Your task to perform on an android device: Open the calendar and show me this week's events? Image 0: 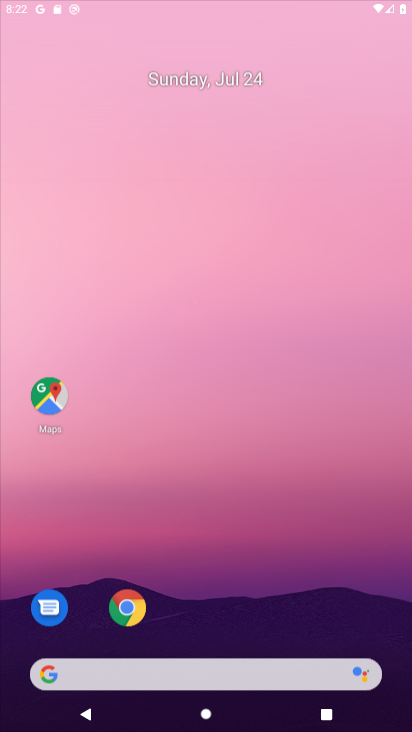
Step 0: click (282, 72)
Your task to perform on an android device: Open the calendar and show me this week's events? Image 1: 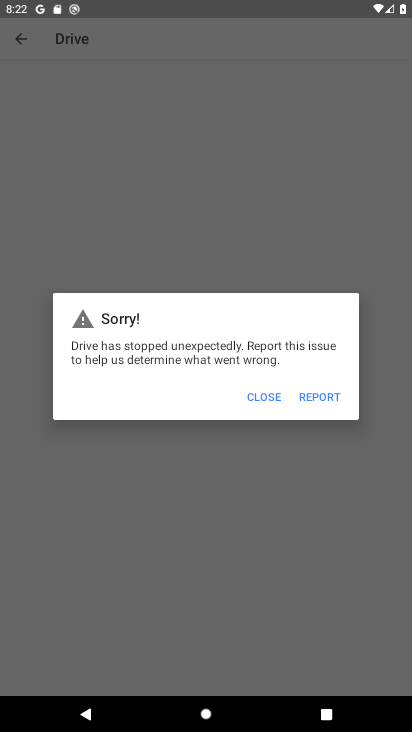
Step 1: press home button
Your task to perform on an android device: Open the calendar and show me this week's events? Image 2: 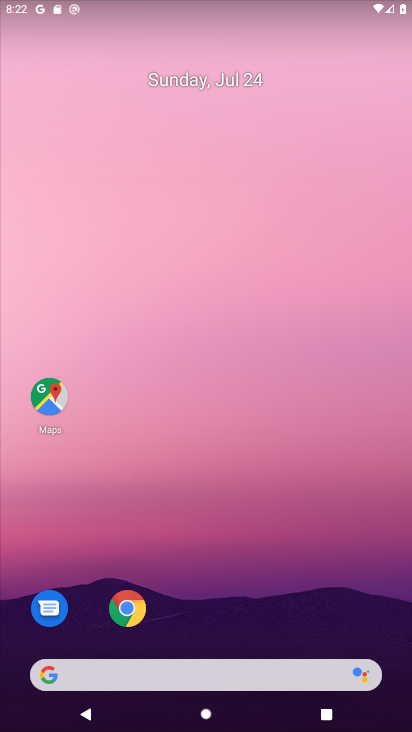
Step 2: click (204, 88)
Your task to perform on an android device: Open the calendar and show me this week's events? Image 3: 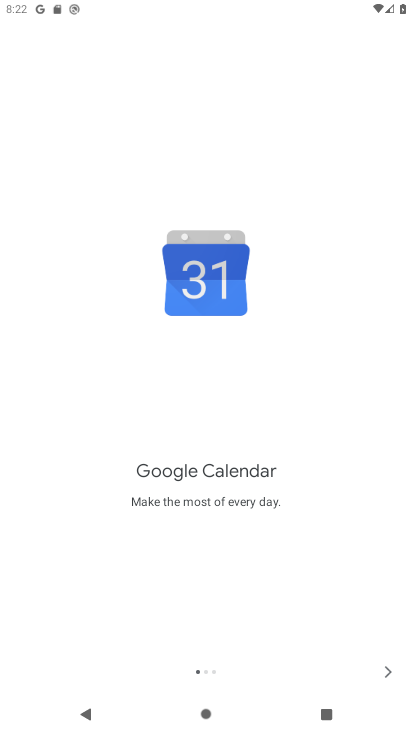
Step 3: click (390, 683)
Your task to perform on an android device: Open the calendar and show me this week's events? Image 4: 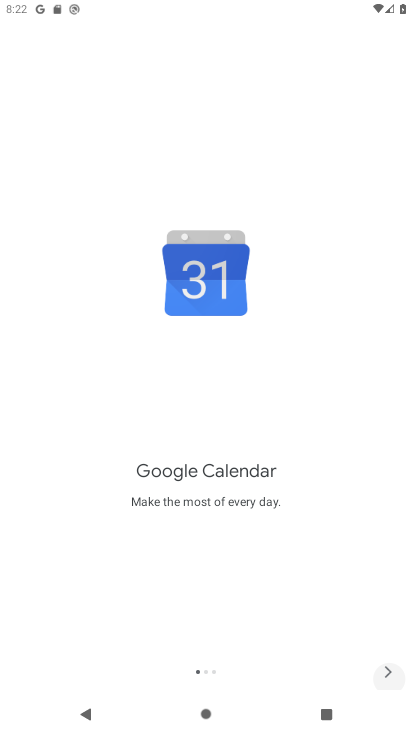
Step 4: click (390, 683)
Your task to perform on an android device: Open the calendar and show me this week's events? Image 5: 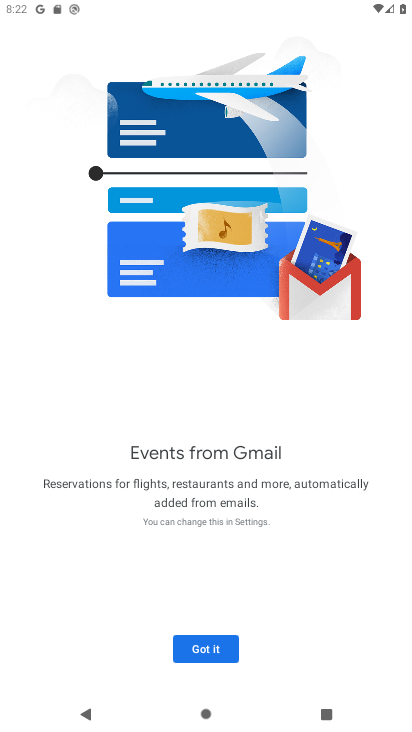
Step 5: click (199, 644)
Your task to perform on an android device: Open the calendar and show me this week's events? Image 6: 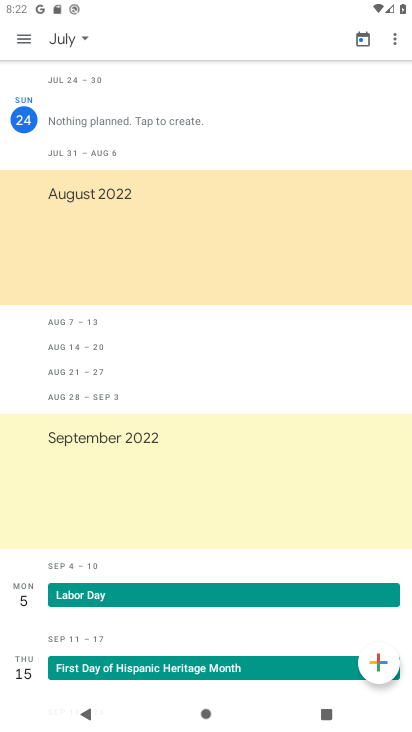
Step 6: click (26, 37)
Your task to perform on an android device: Open the calendar and show me this week's events? Image 7: 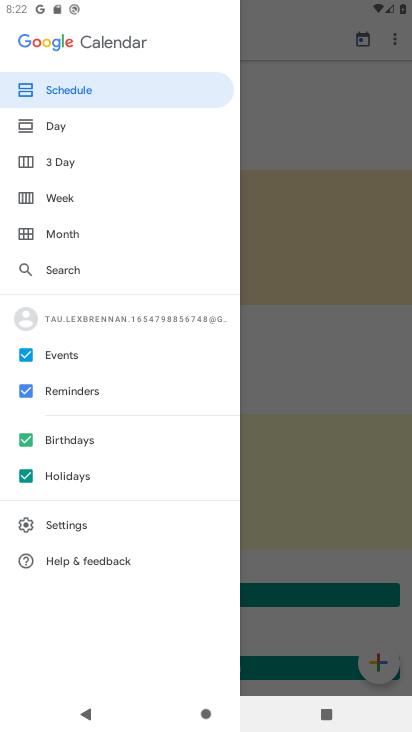
Step 7: click (26, 402)
Your task to perform on an android device: Open the calendar and show me this week's events? Image 8: 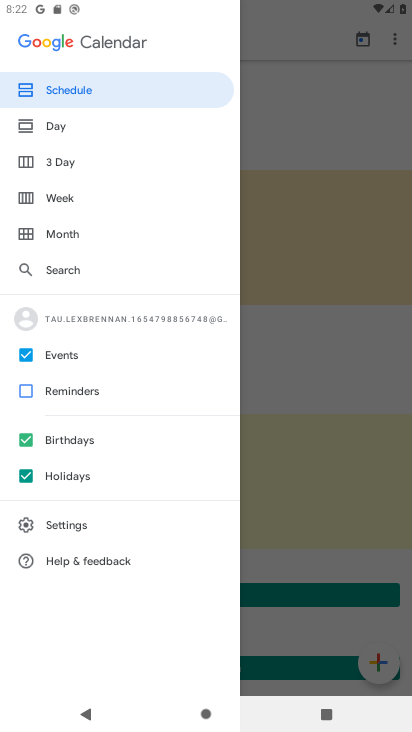
Step 8: click (28, 442)
Your task to perform on an android device: Open the calendar and show me this week's events? Image 9: 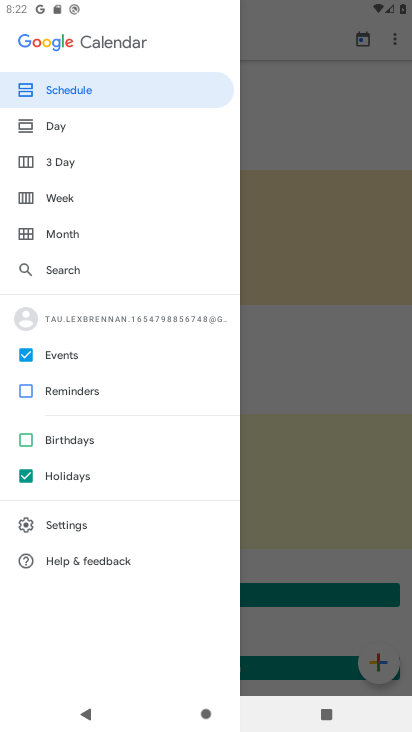
Step 9: click (26, 474)
Your task to perform on an android device: Open the calendar and show me this week's events? Image 10: 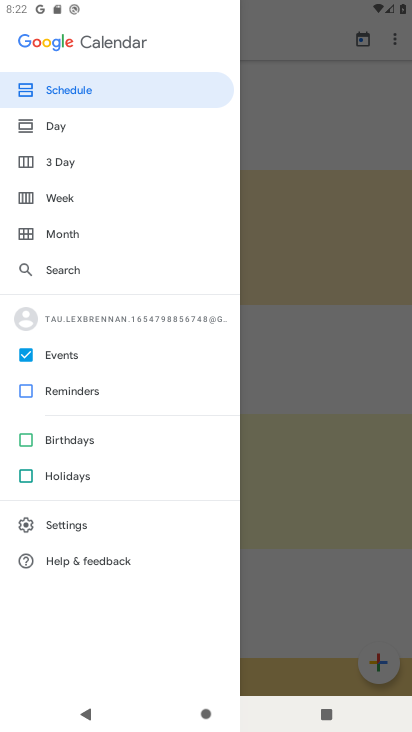
Step 10: click (77, 202)
Your task to perform on an android device: Open the calendar and show me this week's events? Image 11: 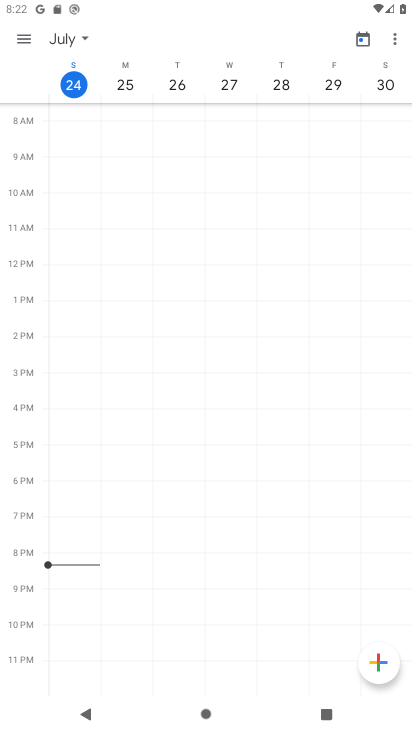
Step 11: task complete